Your task to perform on an android device: move an email to a new category in the gmail app Image 0: 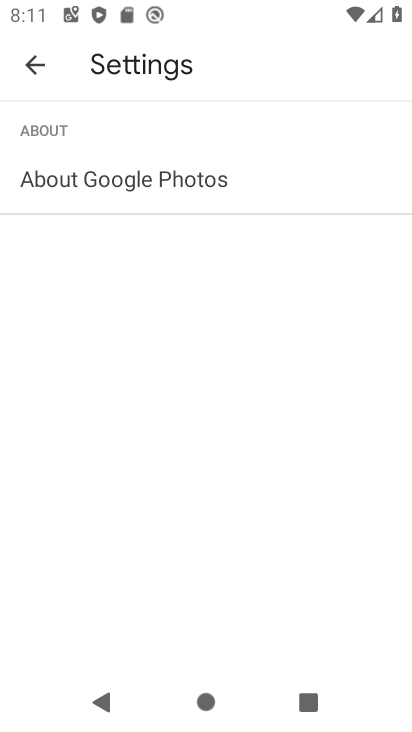
Step 0: press home button
Your task to perform on an android device: move an email to a new category in the gmail app Image 1: 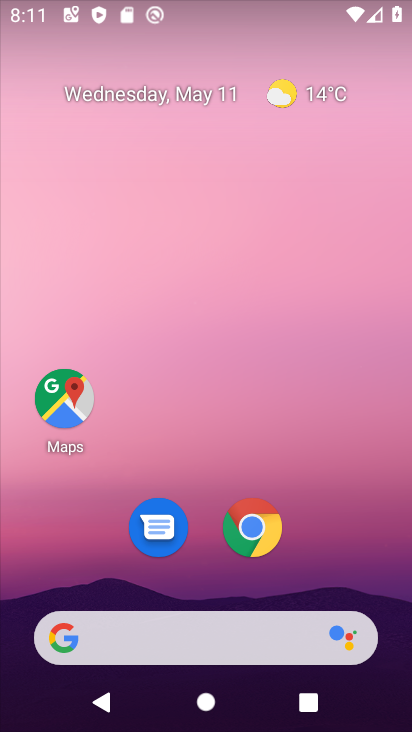
Step 1: drag from (347, 461) to (235, 6)
Your task to perform on an android device: move an email to a new category in the gmail app Image 2: 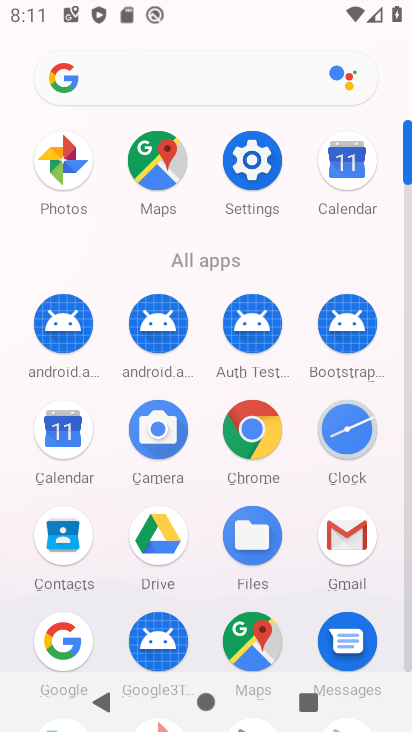
Step 2: click (354, 522)
Your task to perform on an android device: move an email to a new category in the gmail app Image 3: 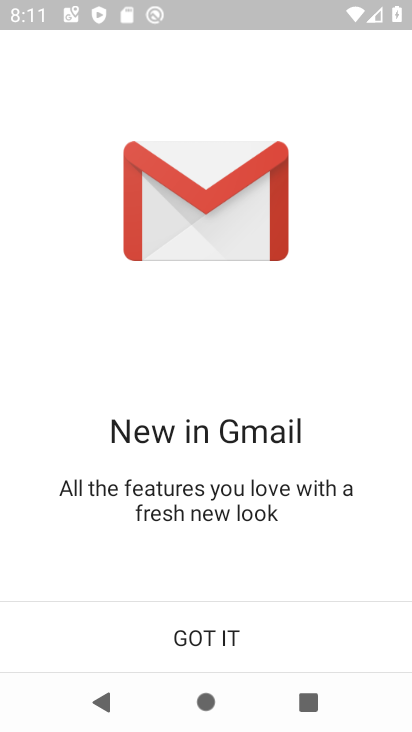
Step 3: click (209, 642)
Your task to perform on an android device: move an email to a new category in the gmail app Image 4: 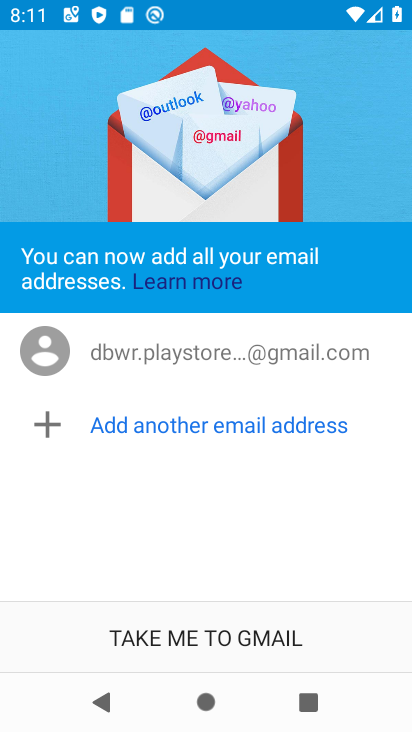
Step 4: click (204, 637)
Your task to perform on an android device: move an email to a new category in the gmail app Image 5: 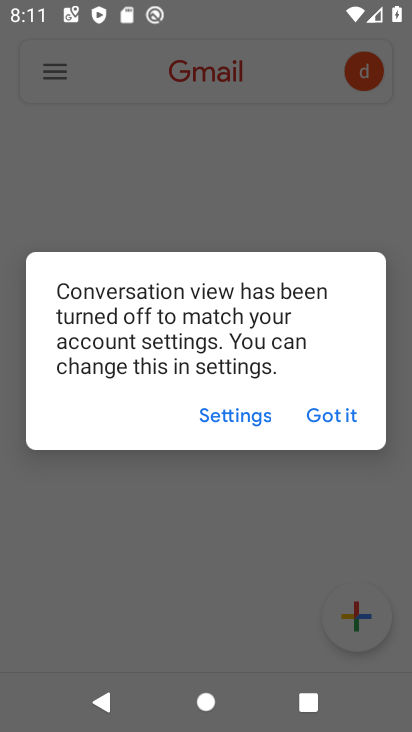
Step 5: click (326, 413)
Your task to perform on an android device: move an email to a new category in the gmail app Image 6: 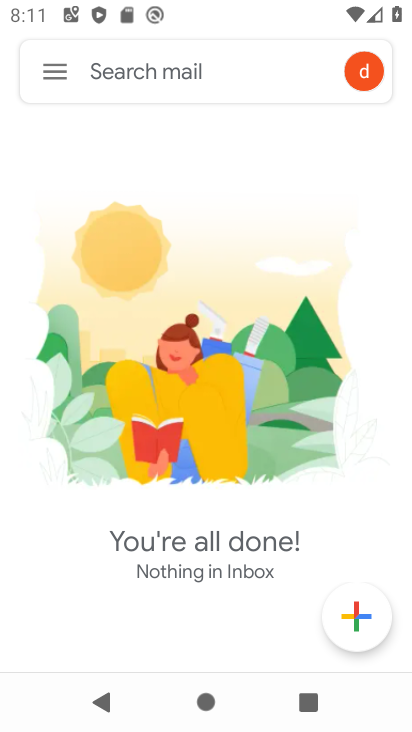
Step 6: click (51, 72)
Your task to perform on an android device: move an email to a new category in the gmail app Image 7: 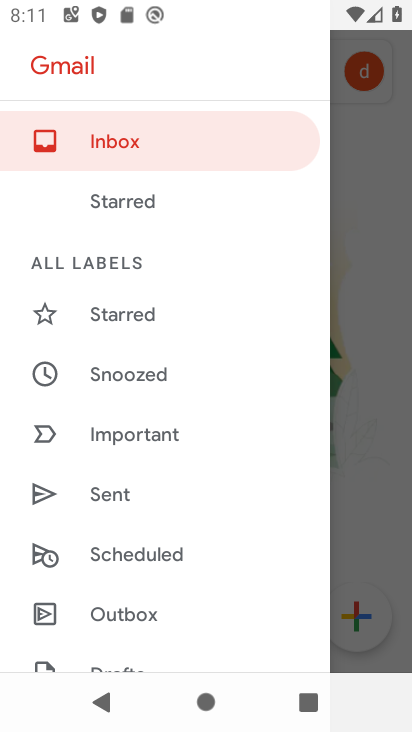
Step 7: drag from (218, 477) to (218, 185)
Your task to perform on an android device: move an email to a new category in the gmail app Image 8: 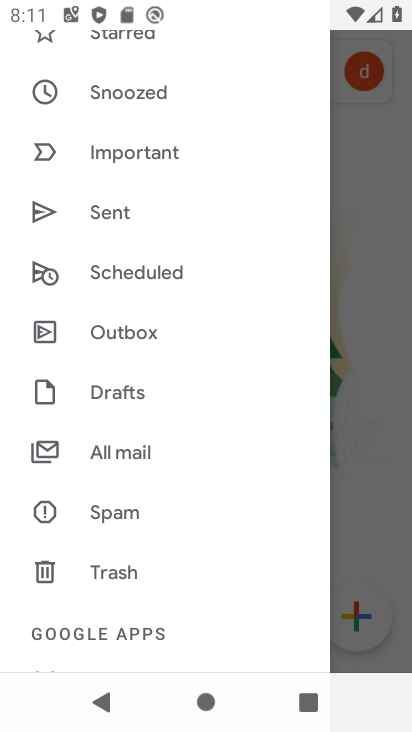
Step 8: click (131, 435)
Your task to perform on an android device: move an email to a new category in the gmail app Image 9: 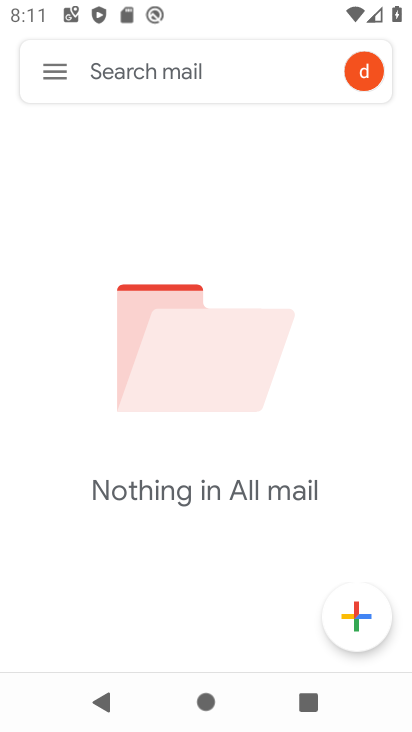
Step 9: task complete